Your task to perform on an android device: Open CNN.com Image 0: 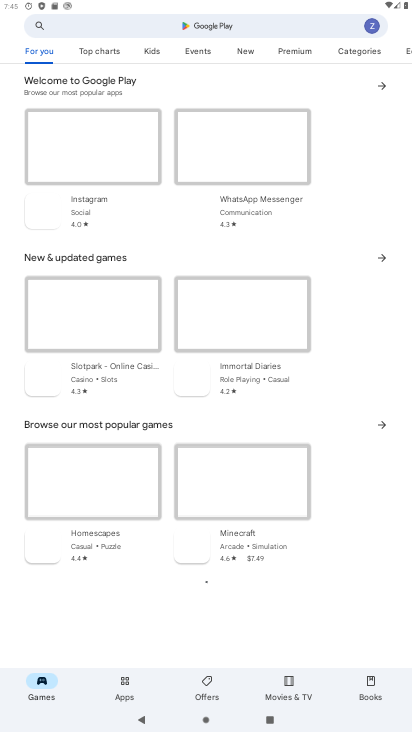
Step 0: press home button
Your task to perform on an android device: Open CNN.com Image 1: 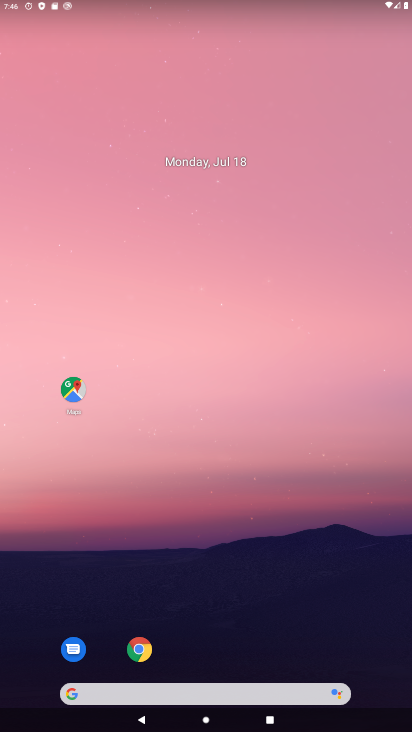
Step 1: click (217, 117)
Your task to perform on an android device: Open CNN.com Image 2: 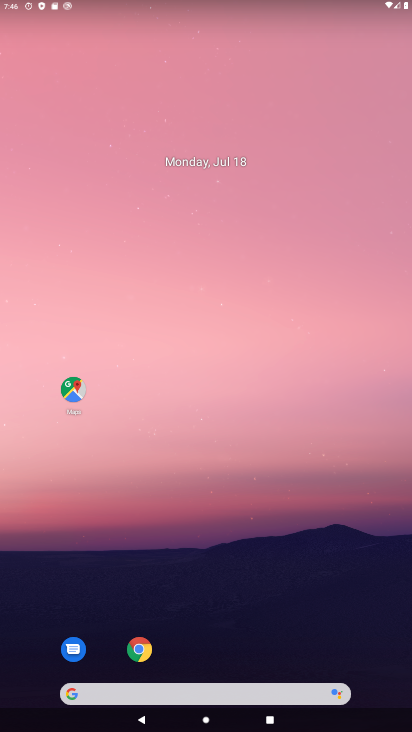
Step 2: drag from (328, 411) to (334, 162)
Your task to perform on an android device: Open CNN.com Image 3: 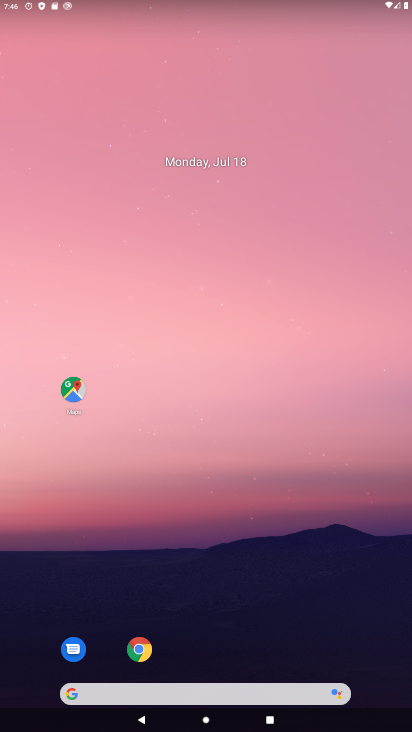
Step 3: drag from (277, 657) to (280, 121)
Your task to perform on an android device: Open CNN.com Image 4: 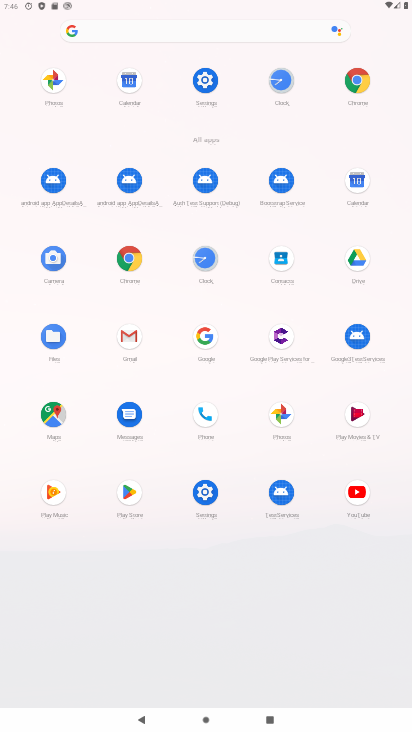
Step 4: click (359, 78)
Your task to perform on an android device: Open CNN.com Image 5: 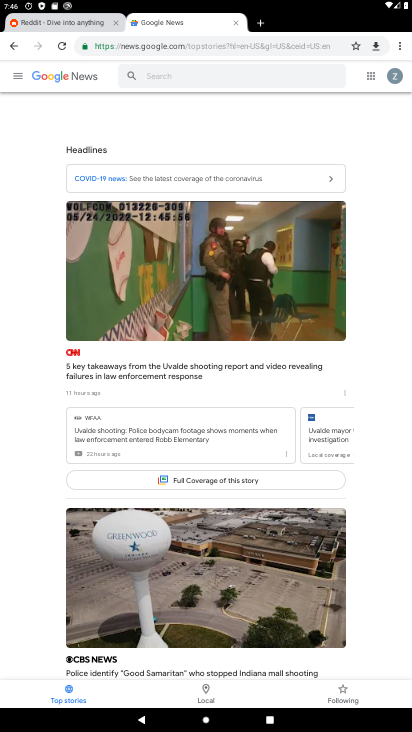
Step 5: click (225, 50)
Your task to perform on an android device: Open CNN.com Image 6: 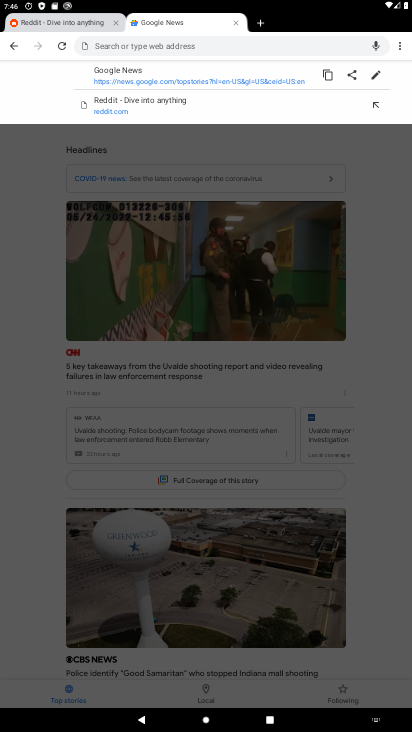
Step 6: type "cnn.com"
Your task to perform on an android device: Open CNN.com Image 7: 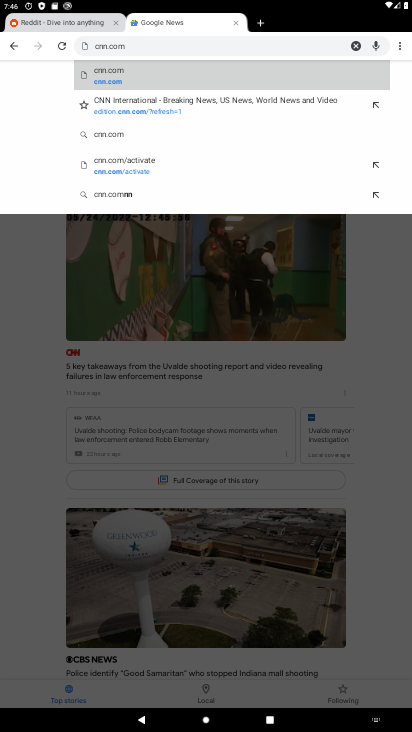
Step 7: click (148, 80)
Your task to perform on an android device: Open CNN.com Image 8: 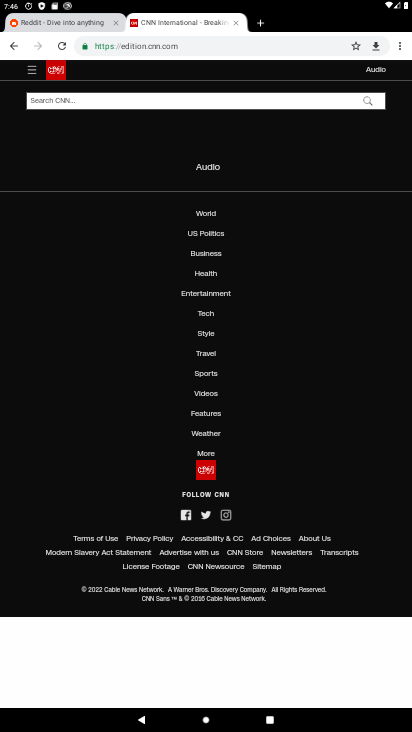
Step 8: task complete